Your task to perform on an android device: Open calendar and show me the first week of next month Image 0: 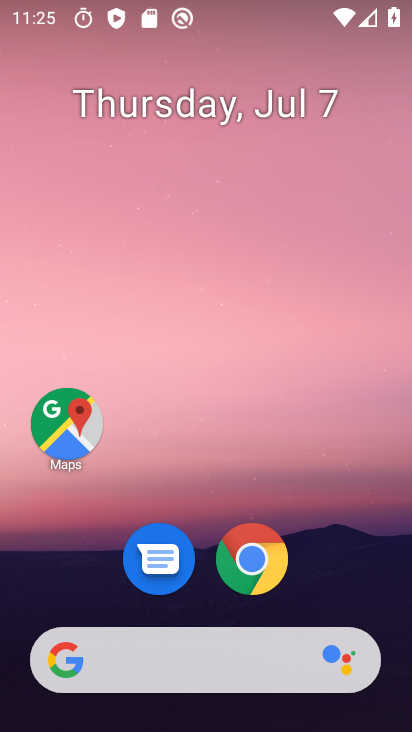
Step 0: drag from (352, 548) to (361, 77)
Your task to perform on an android device: Open calendar and show me the first week of next month Image 1: 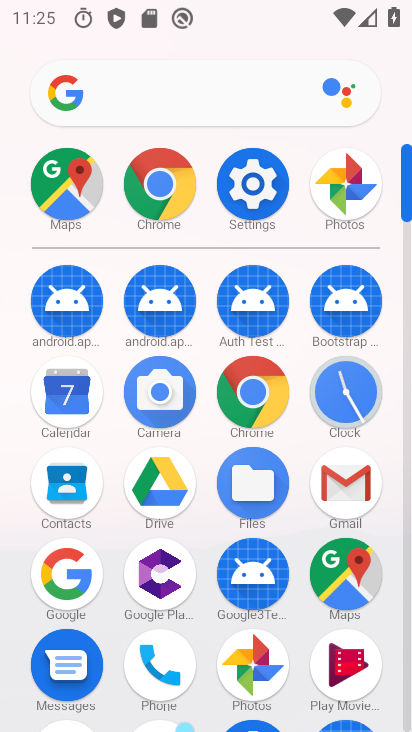
Step 1: click (89, 404)
Your task to perform on an android device: Open calendar and show me the first week of next month Image 2: 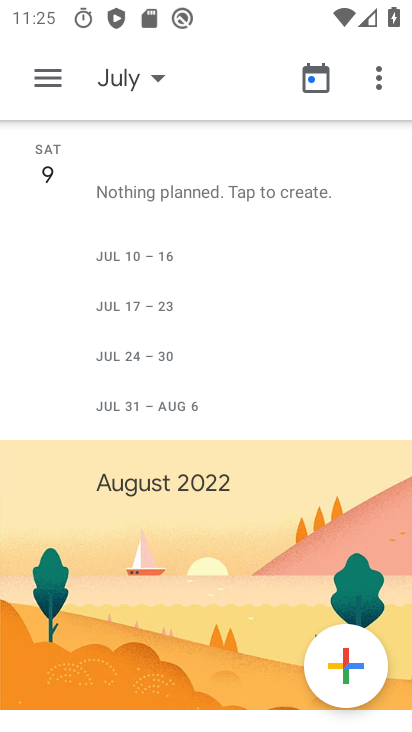
Step 2: click (165, 88)
Your task to perform on an android device: Open calendar and show me the first week of next month Image 3: 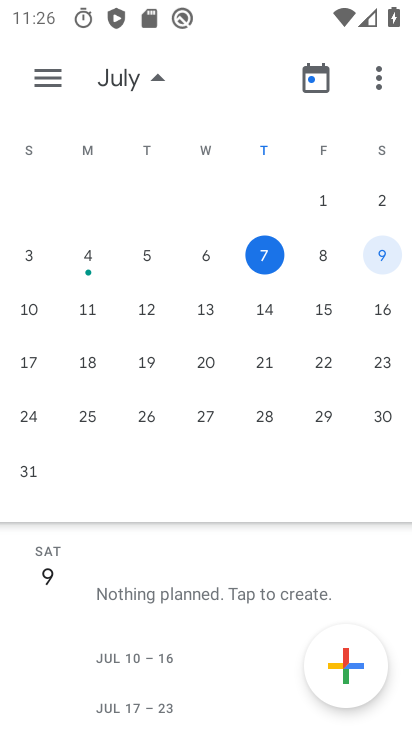
Step 3: task complete